Your task to perform on an android device: Open battery settings Image 0: 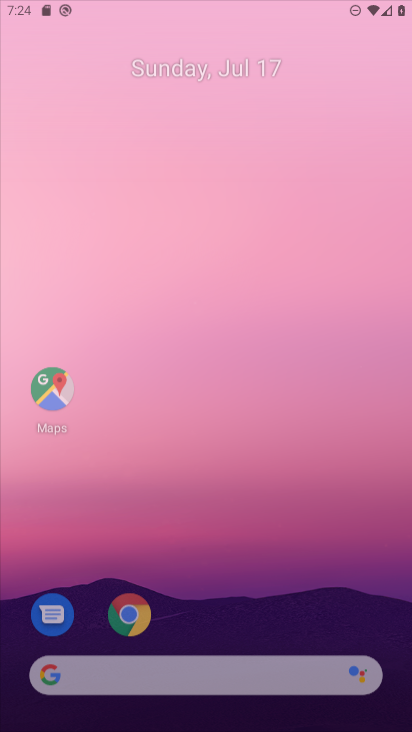
Step 0: click (201, 22)
Your task to perform on an android device: Open battery settings Image 1: 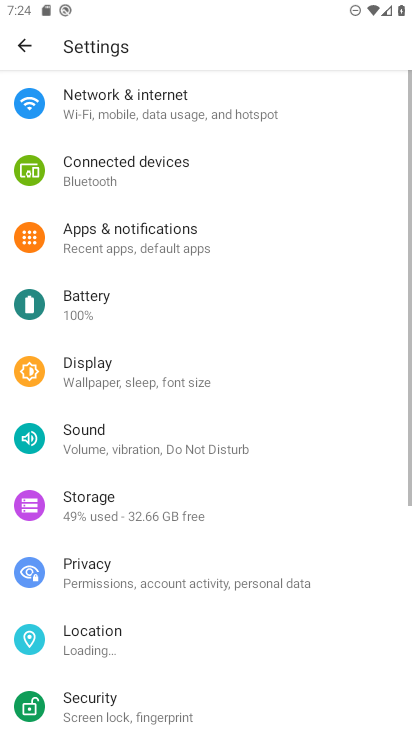
Step 1: drag from (155, 690) to (208, 424)
Your task to perform on an android device: Open battery settings Image 2: 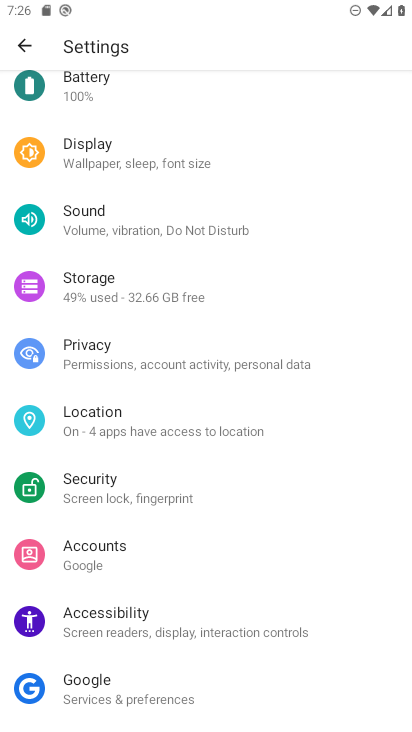
Step 2: click (125, 99)
Your task to perform on an android device: Open battery settings Image 3: 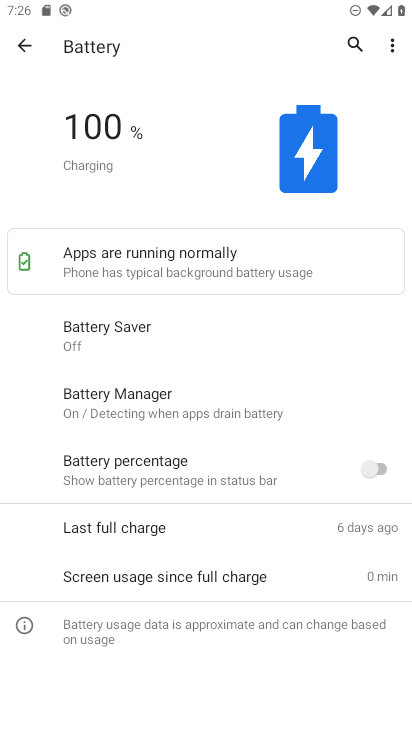
Step 3: task complete